Your task to perform on an android device: turn on showing notifications on the lock screen Image 0: 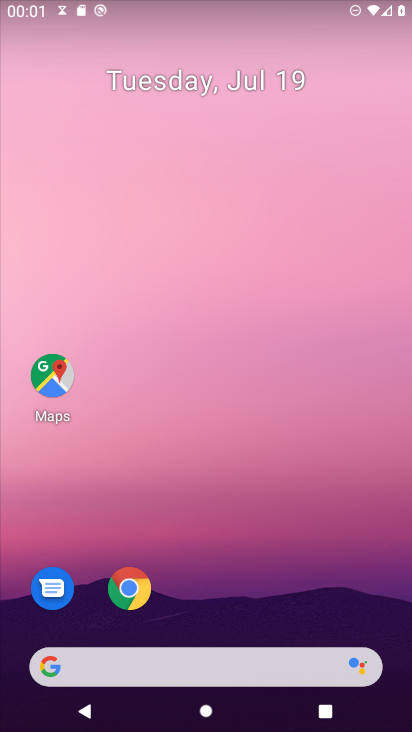
Step 0: press home button
Your task to perform on an android device: turn on showing notifications on the lock screen Image 1: 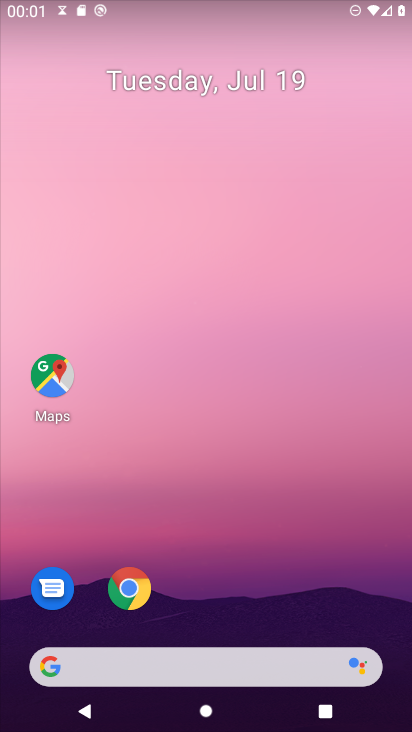
Step 1: press home button
Your task to perform on an android device: turn on showing notifications on the lock screen Image 2: 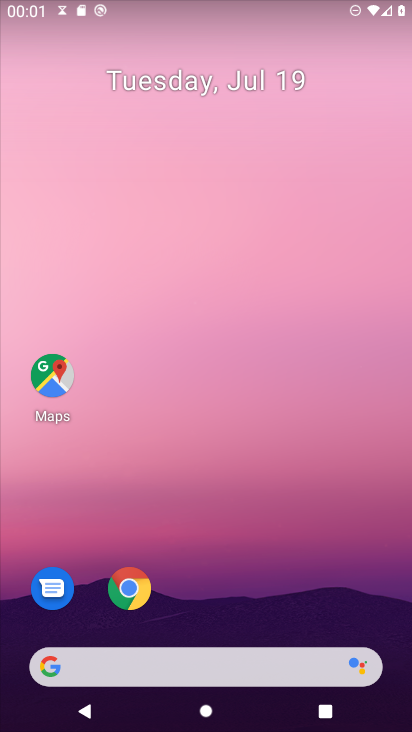
Step 2: drag from (334, 617) to (355, 149)
Your task to perform on an android device: turn on showing notifications on the lock screen Image 3: 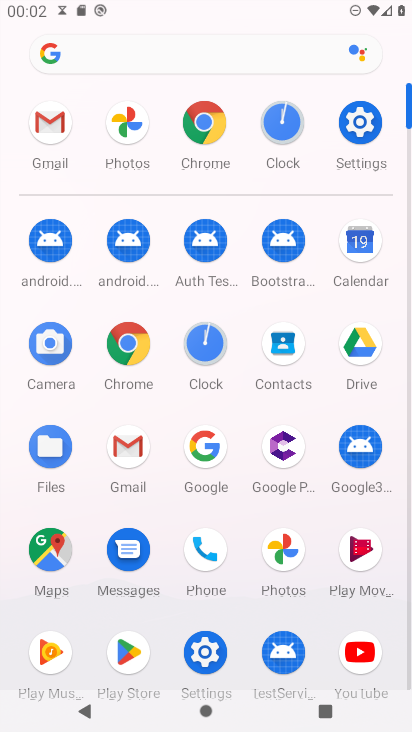
Step 3: click (371, 126)
Your task to perform on an android device: turn on showing notifications on the lock screen Image 4: 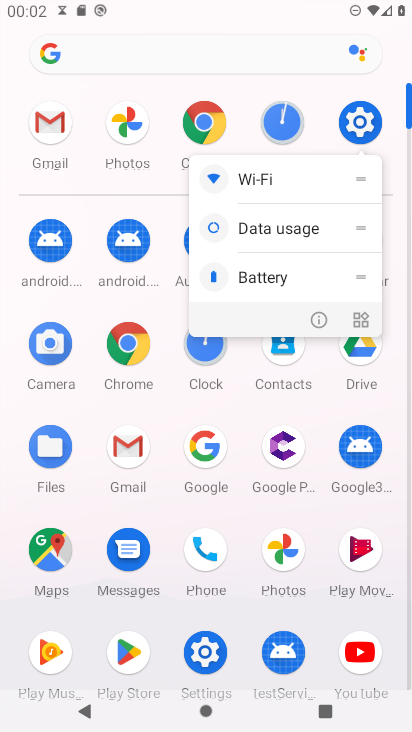
Step 4: click (367, 96)
Your task to perform on an android device: turn on showing notifications on the lock screen Image 5: 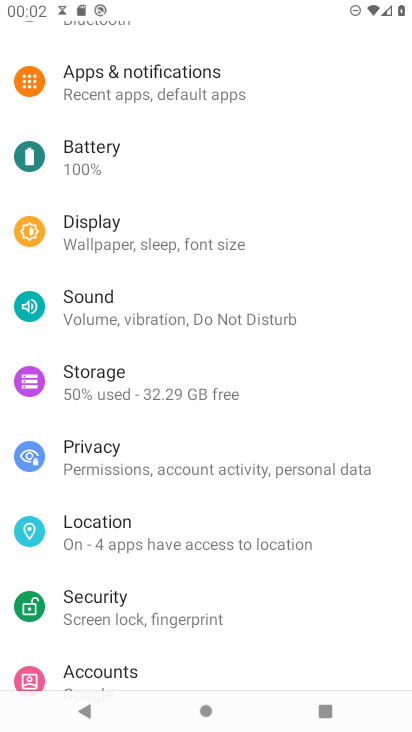
Step 5: click (166, 74)
Your task to perform on an android device: turn on showing notifications on the lock screen Image 6: 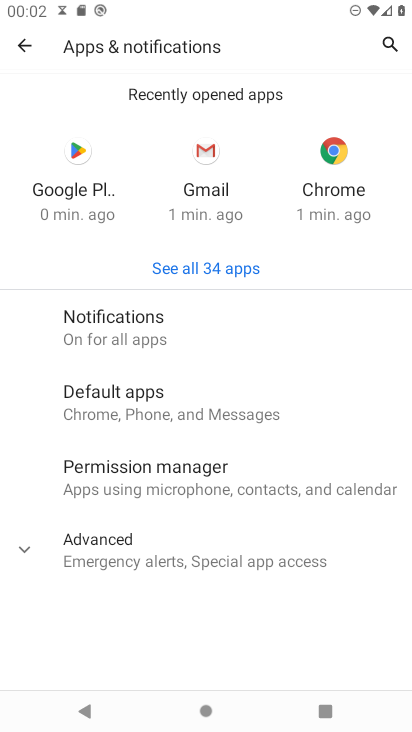
Step 6: click (121, 323)
Your task to perform on an android device: turn on showing notifications on the lock screen Image 7: 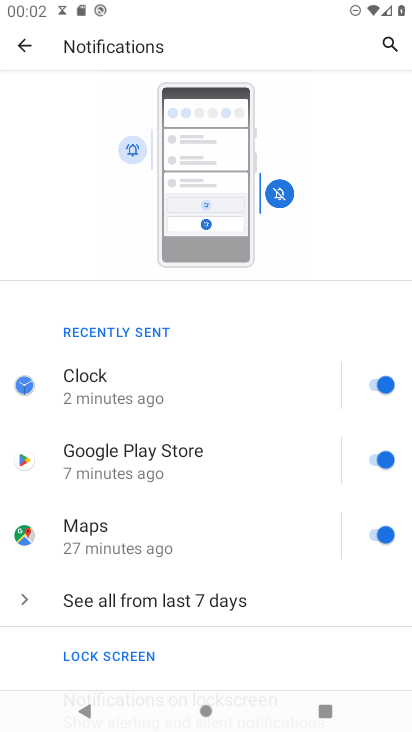
Step 7: drag from (226, 646) to (243, 331)
Your task to perform on an android device: turn on showing notifications on the lock screen Image 8: 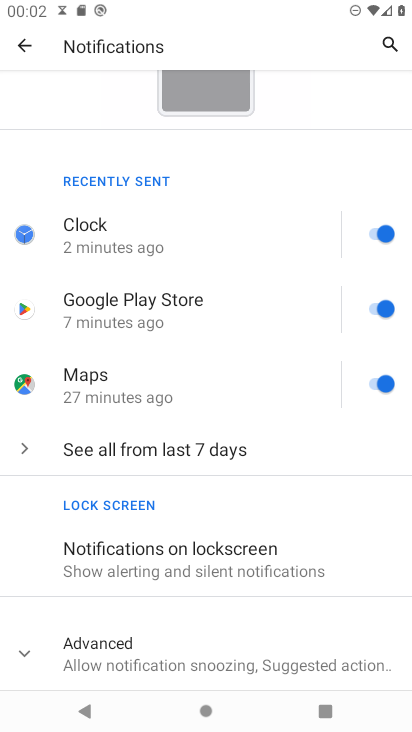
Step 8: click (114, 561)
Your task to perform on an android device: turn on showing notifications on the lock screen Image 9: 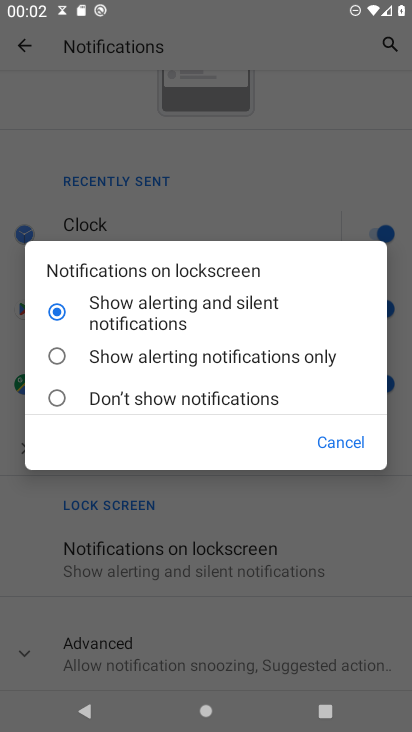
Step 9: task complete